Your task to perform on an android device: Search for pizza restaurants on Maps Image 0: 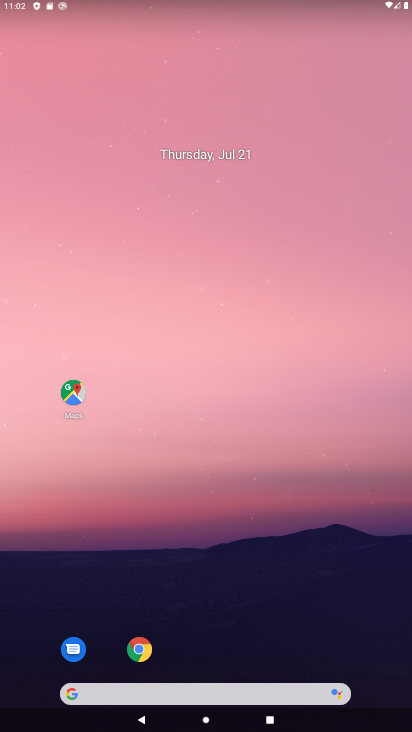
Step 0: click (79, 388)
Your task to perform on an android device: Search for pizza restaurants on Maps Image 1: 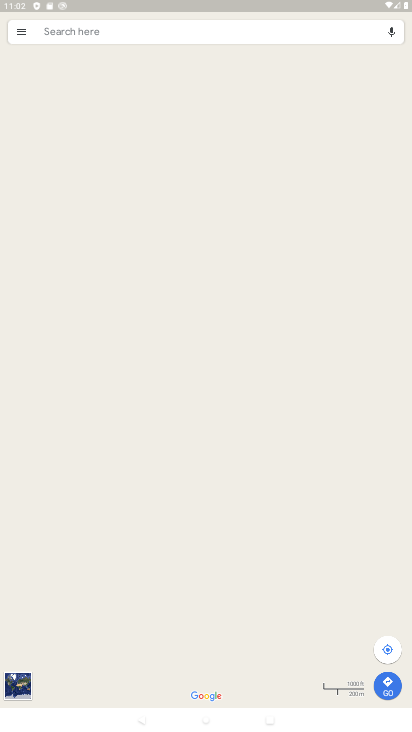
Step 1: click (89, 34)
Your task to perform on an android device: Search for pizza restaurants on Maps Image 2: 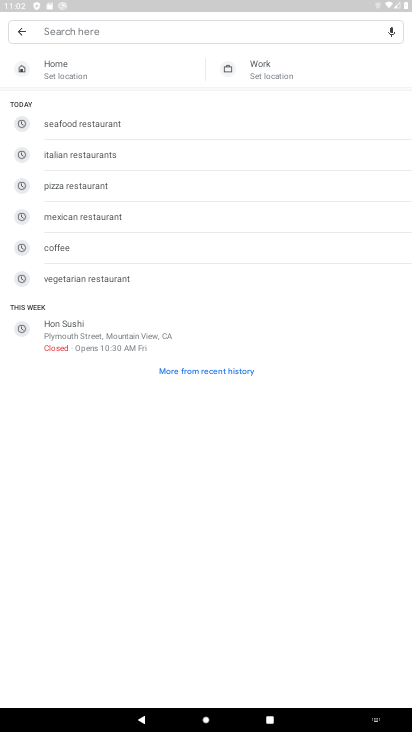
Step 2: click (49, 176)
Your task to perform on an android device: Search for pizza restaurants on Maps Image 3: 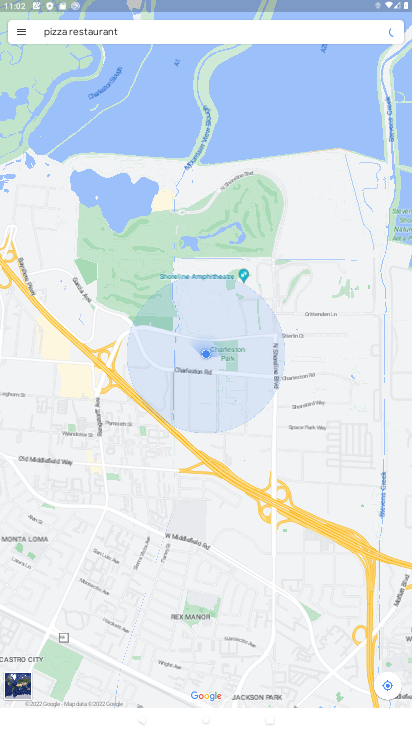
Step 3: task complete